Your task to perform on an android device: turn vacation reply on in the gmail app Image 0: 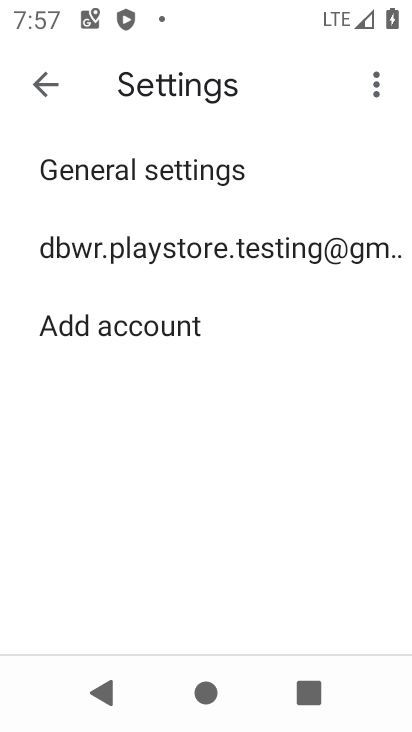
Step 0: click (169, 239)
Your task to perform on an android device: turn vacation reply on in the gmail app Image 1: 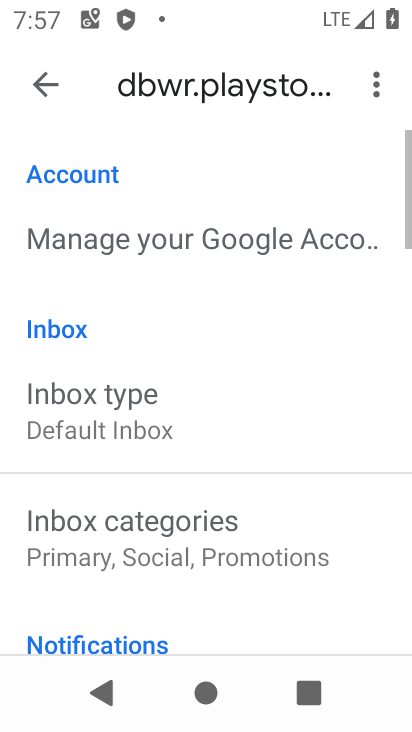
Step 1: drag from (201, 565) to (235, 230)
Your task to perform on an android device: turn vacation reply on in the gmail app Image 2: 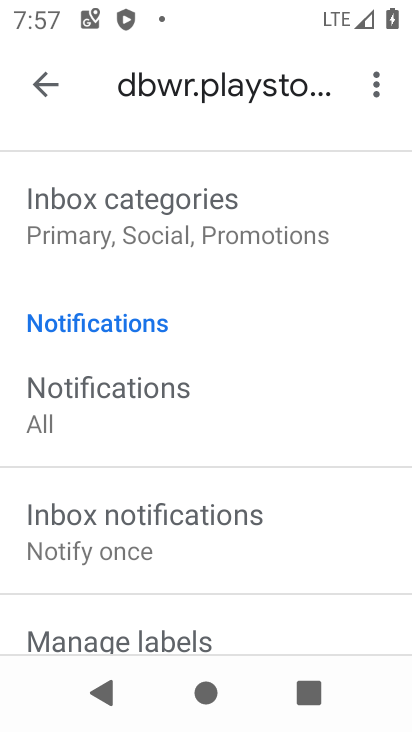
Step 2: drag from (202, 531) to (234, 296)
Your task to perform on an android device: turn vacation reply on in the gmail app Image 3: 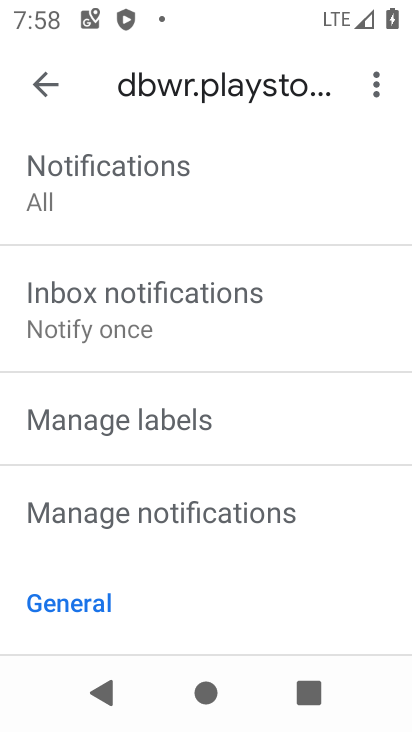
Step 3: drag from (225, 344) to (235, 268)
Your task to perform on an android device: turn vacation reply on in the gmail app Image 4: 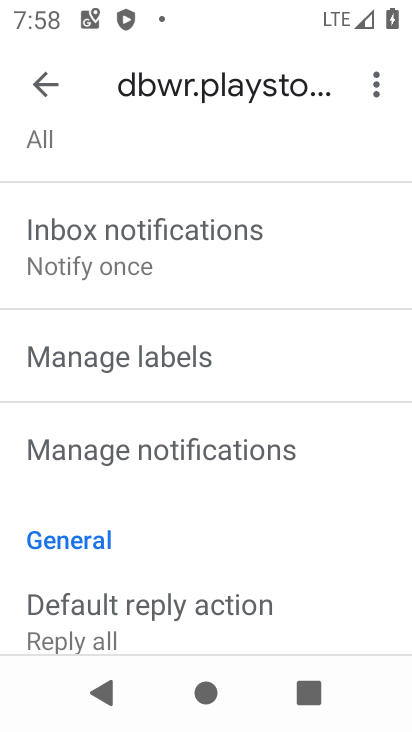
Step 4: drag from (201, 542) to (224, 248)
Your task to perform on an android device: turn vacation reply on in the gmail app Image 5: 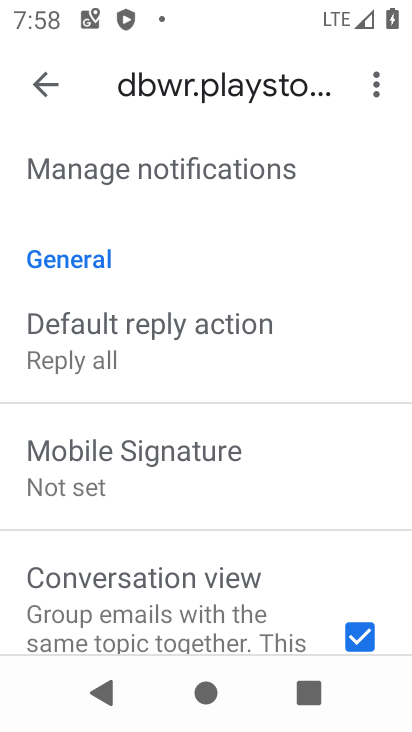
Step 5: drag from (215, 629) to (222, 347)
Your task to perform on an android device: turn vacation reply on in the gmail app Image 6: 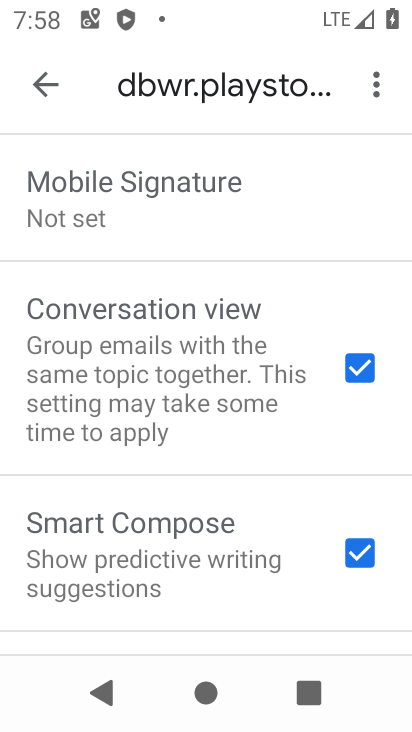
Step 6: drag from (226, 570) to (232, 368)
Your task to perform on an android device: turn vacation reply on in the gmail app Image 7: 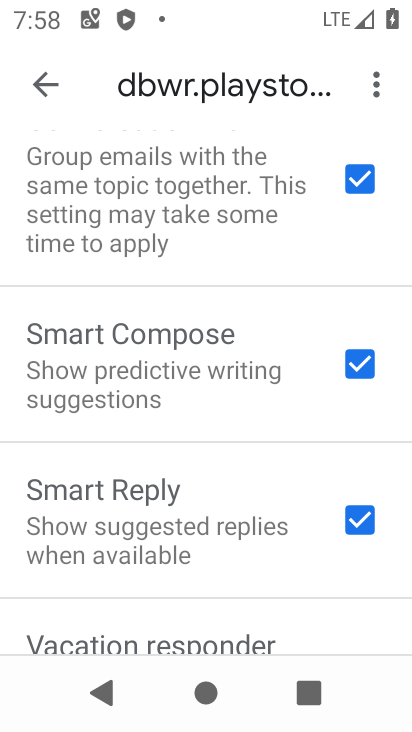
Step 7: drag from (252, 590) to (263, 389)
Your task to perform on an android device: turn vacation reply on in the gmail app Image 8: 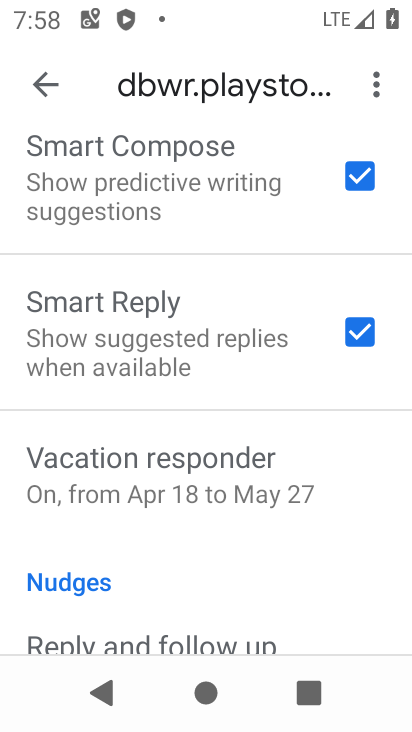
Step 8: drag from (216, 363) to (179, 629)
Your task to perform on an android device: turn vacation reply on in the gmail app Image 9: 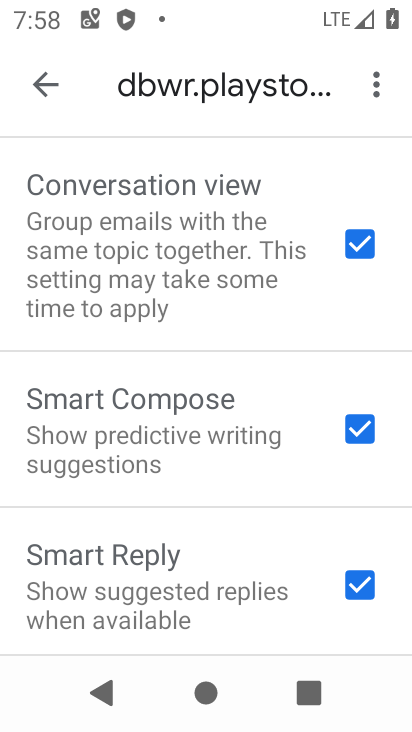
Step 9: drag from (187, 296) to (283, 590)
Your task to perform on an android device: turn vacation reply on in the gmail app Image 10: 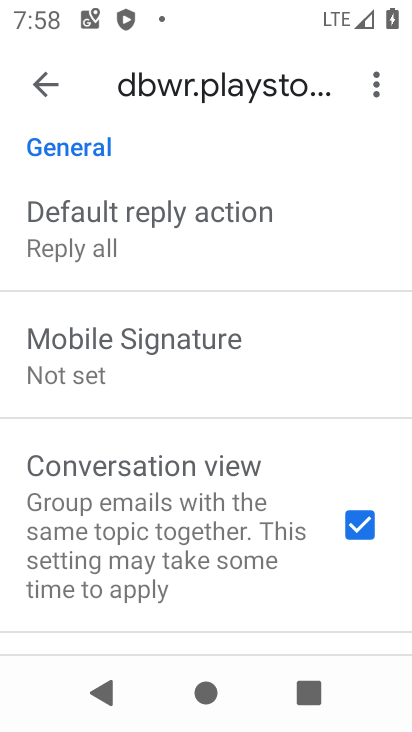
Step 10: drag from (223, 255) to (270, 0)
Your task to perform on an android device: turn vacation reply on in the gmail app Image 11: 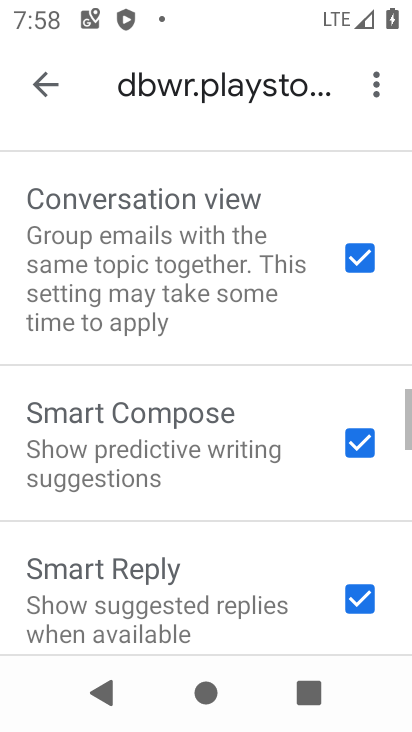
Step 11: drag from (185, 320) to (249, 668)
Your task to perform on an android device: turn vacation reply on in the gmail app Image 12: 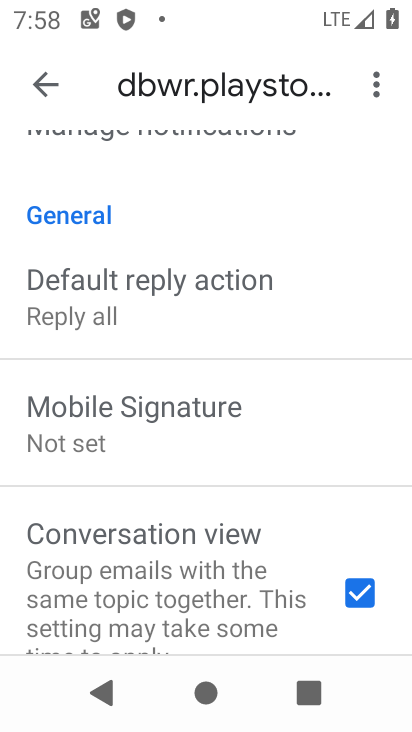
Step 12: drag from (225, 490) to (402, 156)
Your task to perform on an android device: turn vacation reply on in the gmail app Image 13: 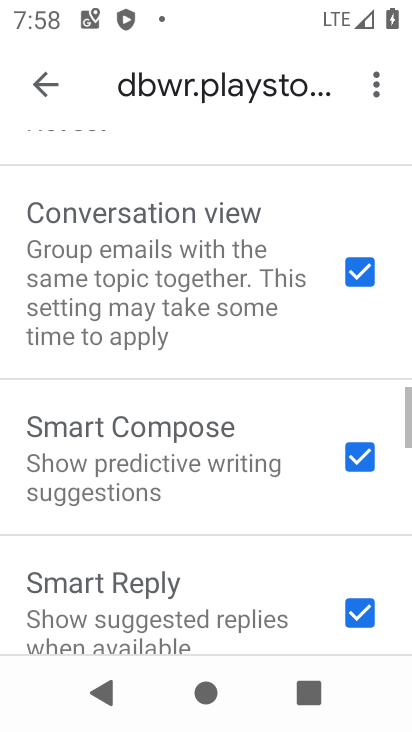
Step 13: click (221, 578)
Your task to perform on an android device: turn vacation reply on in the gmail app Image 14: 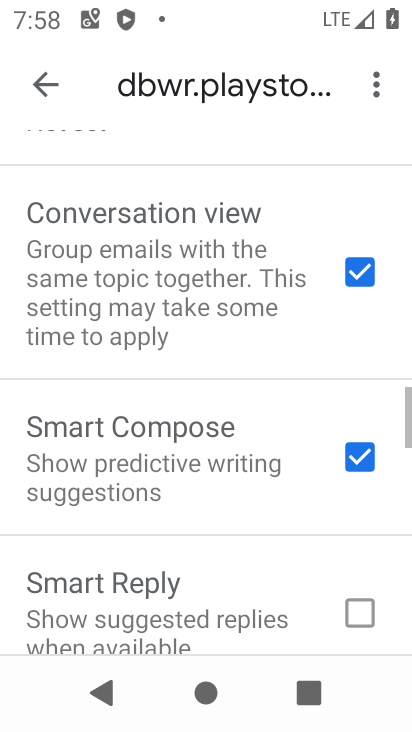
Step 14: click (221, 578)
Your task to perform on an android device: turn vacation reply on in the gmail app Image 15: 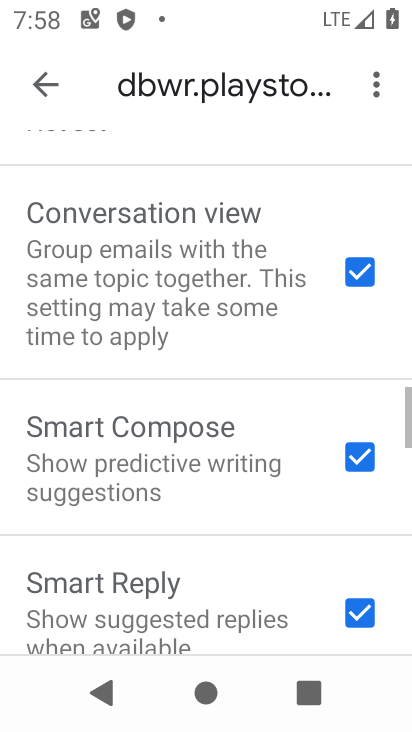
Step 15: drag from (221, 577) to (276, 169)
Your task to perform on an android device: turn vacation reply on in the gmail app Image 16: 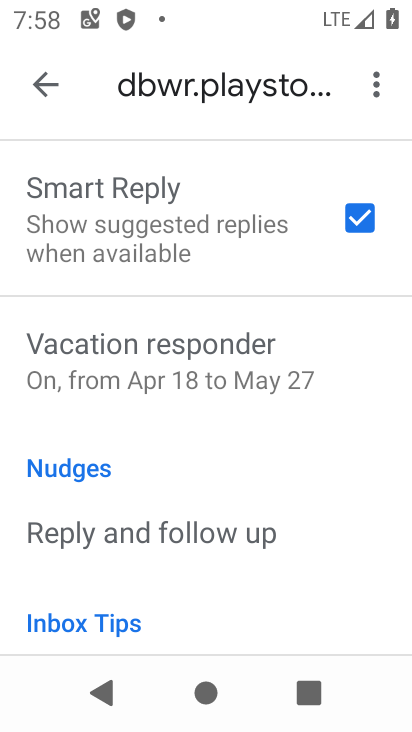
Step 16: click (187, 341)
Your task to perform on an android device: turn vacation reply on in the gmail app Image 17: 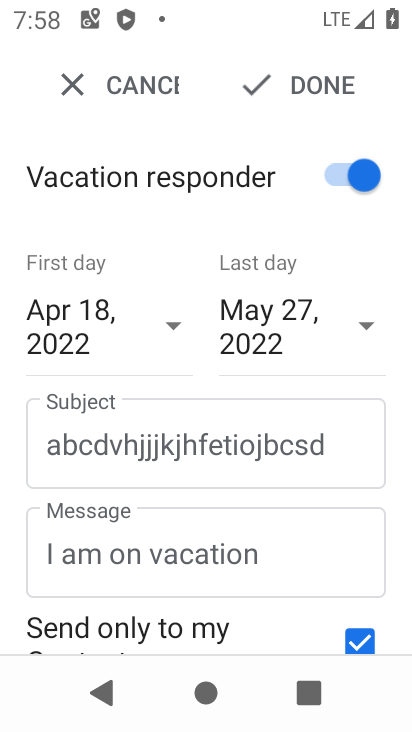
Step 17: drag from (239, 362) to (274, 158)
Your task to perform on an android device: turn vacation reply on in the gmail app Image 18: 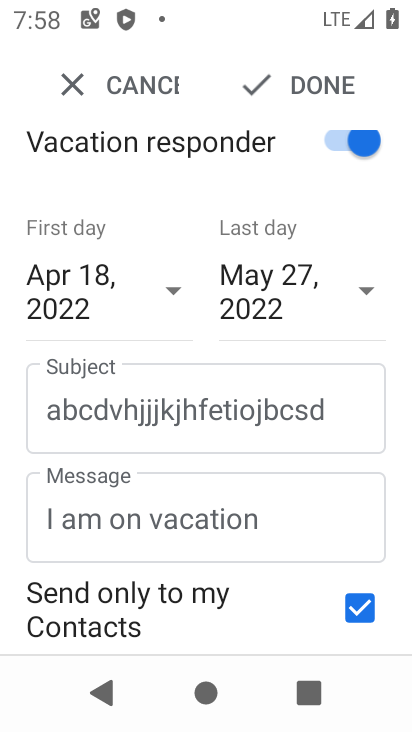
Step 18: click (271, 81)
Your task to perform on an android device: turn vacation reply on in the gmail app Image 19: 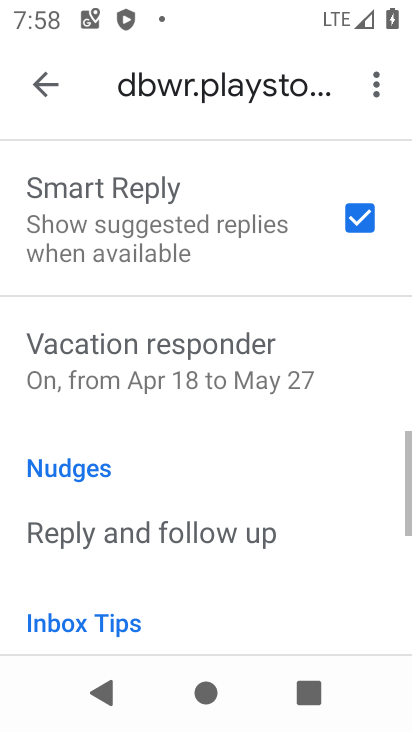
Step 19: task complete